Your task to perform on an android device: delete browsing data in the chrome app Image 0: 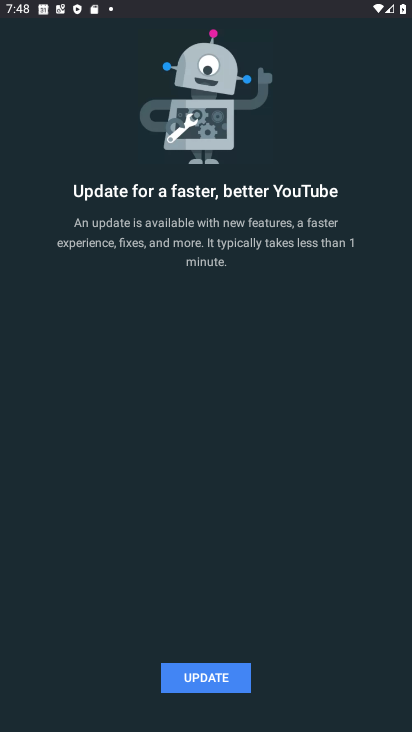
Step 0: press back button
Your task to perform on an android device: delete browsing data in the chrome app Image 1: 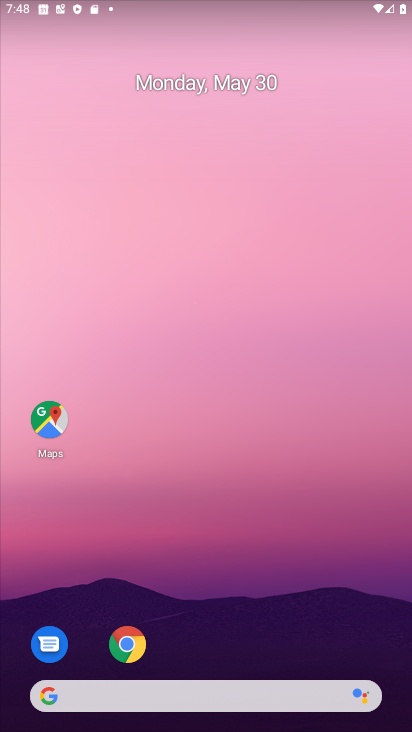
Step 1: click (127, 646)
Your task to perform on an android device: delete browsing data in the chrome app Image 2: 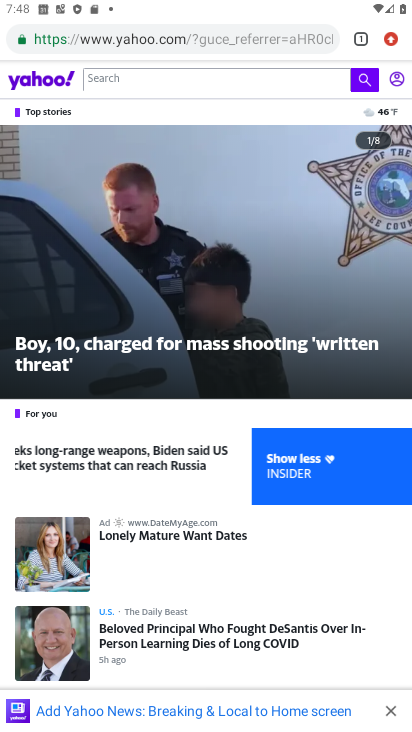
Step 2: click (391, 40)
Your task to perform on an android device: delete browsing data in the chrome app Image 3: 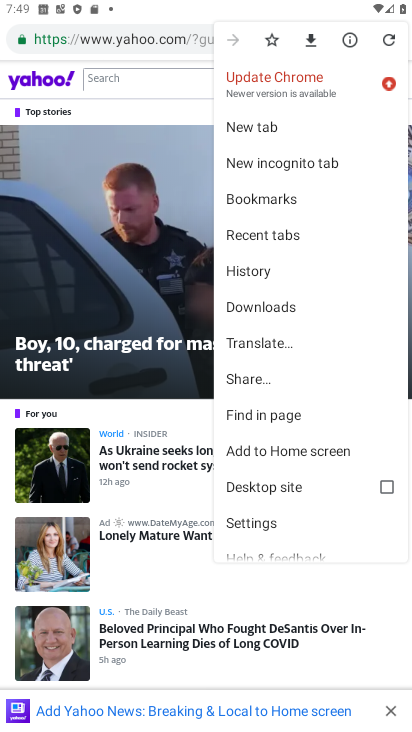
Step 3: click (246, 271)
Your task to perform on an android device: delete browsing data in the chrome app Image 4: 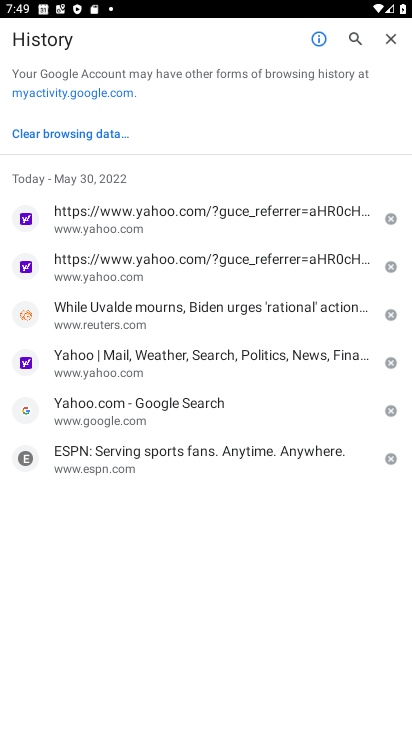
Step 4: click (108, 134)
Your task to perform on an android device: delete browsing data in the chrome app Image 5: 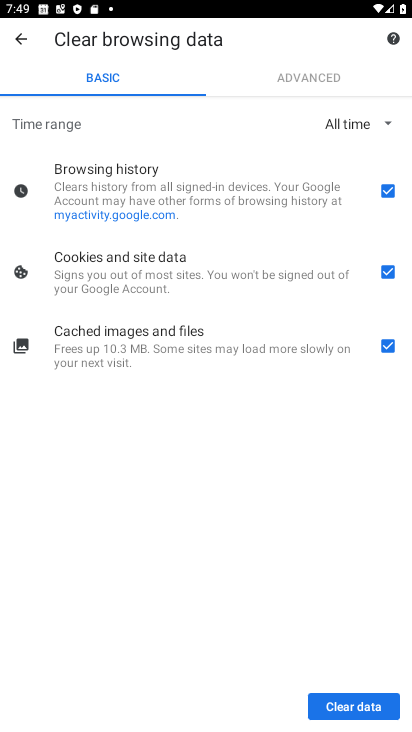
Step 5: click (364, 706)
Your task to perform on an android device: delete browsing data in the chrome app Image 6: 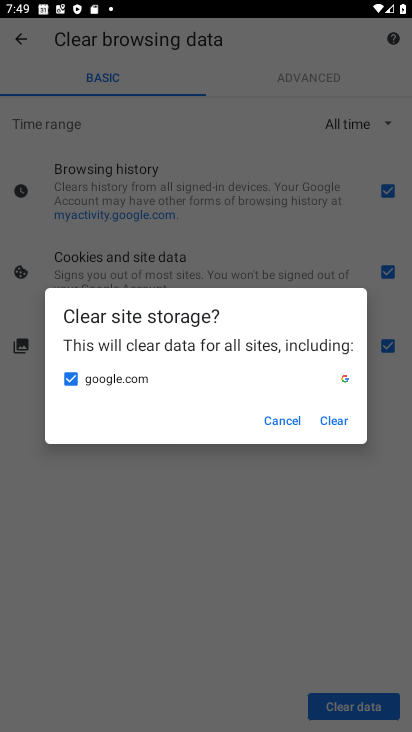
Step 6: click (339, 423)
Your task to perform on an android device: delete browsing data in the chrome app Image 7: 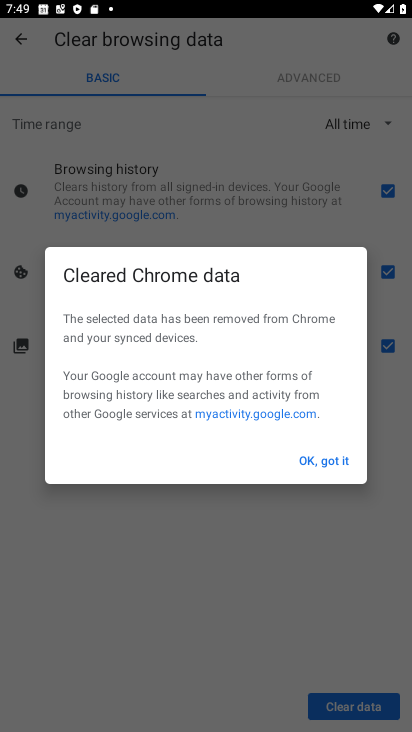
Step 7: click (331, 455)
Your task to perform on an android device: delete browsing data in the chrome app Image 8: 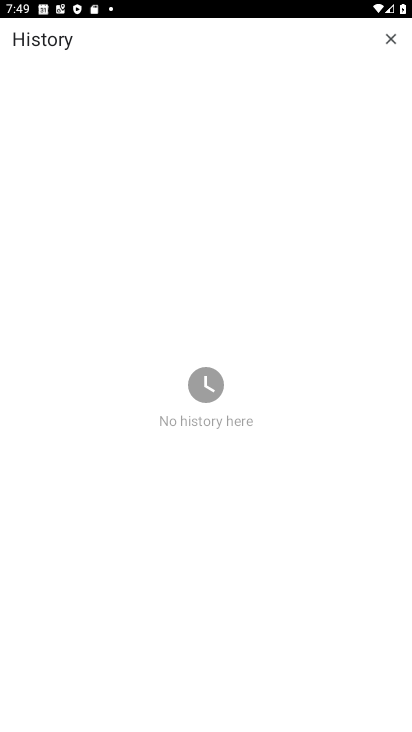
Step 8: task complete